Your task to perform on an android device: check storage Image 0: 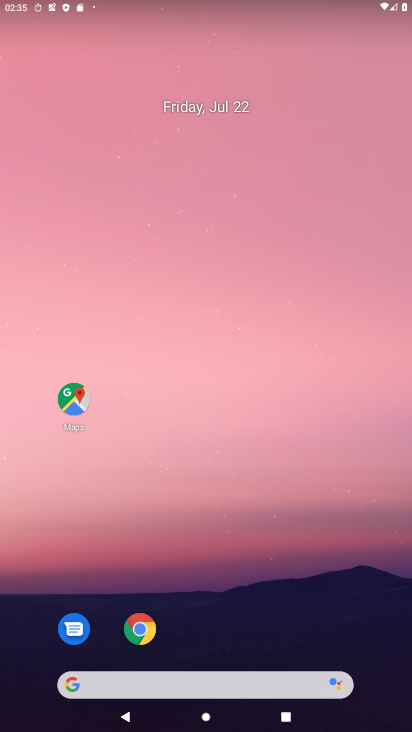
Step 0: drag from (31, 595) to (207, 109)
Your task to perform on an android device: check storage Image 1: 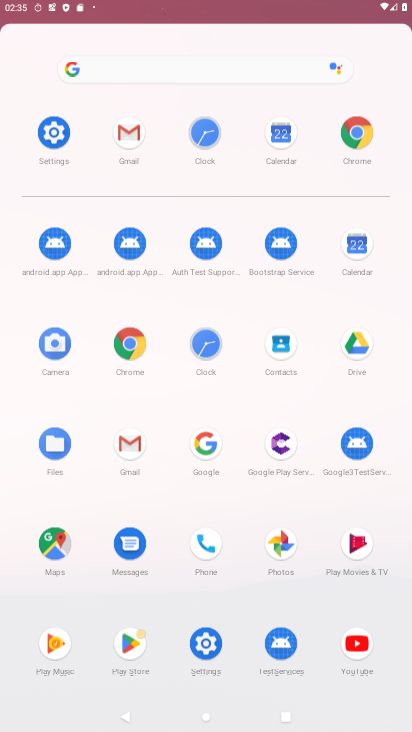
Step 1: drag from (4, 684) to (168, 54)
Your task to perform on an android device: check storage Image 2: 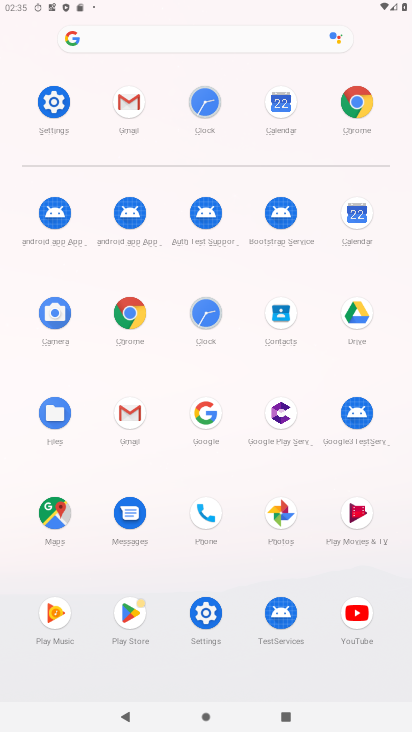
Step 2: click (65, 96)
Your task to perform on an android device: check storage Image 3: 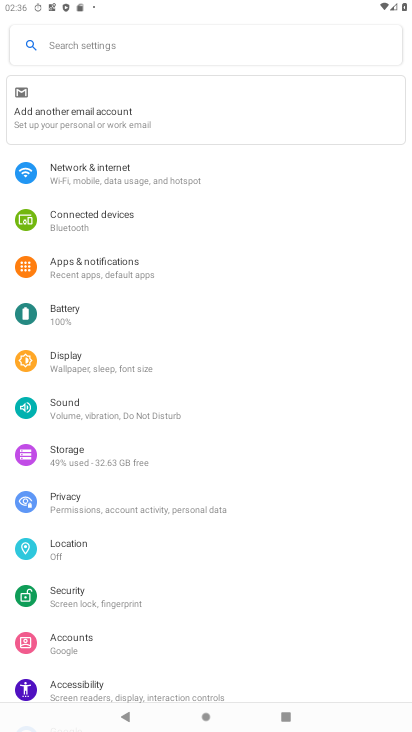
Step 3: click (80, 456)
Your task to perform on an android device: check storage Image 4: 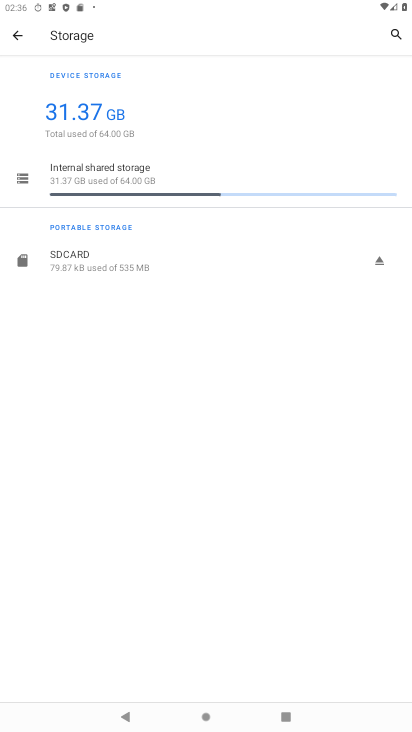
Step 4: task complete